Your task to perform on an android device: turn on sleep mode Image 0: 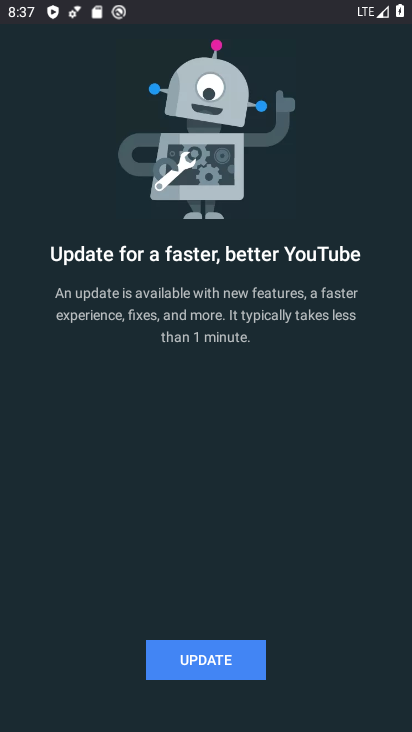
Step 0: press back button
Your task to perform on an android device: turn on sleep mode Image 1: 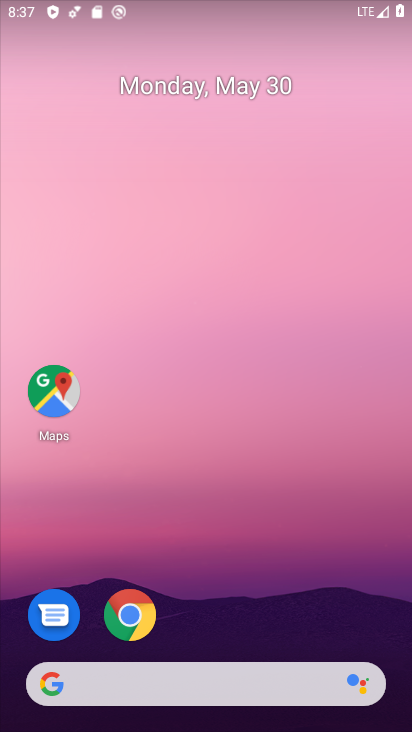
Step 1: drag from (194, 29) to (189, 515)
Your task to perform on an android device: turn on sleep mode Image 2: 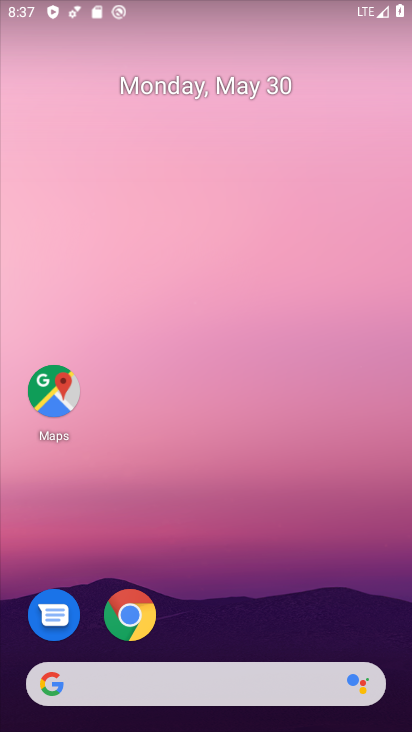
Step 2: drag from (236, 17) to (187, 589)
Your task to perform on an android device: turn on sleep mode Image 3: 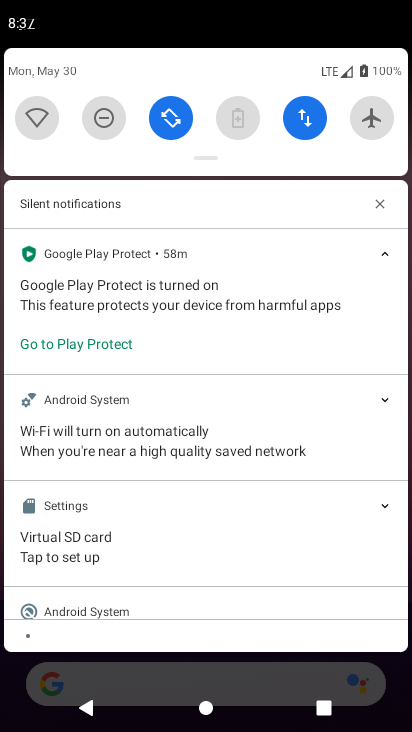
Step 3: drag from (186, 159) to (146, 524)
Your task to perform on an android device: turn on sleep mode Image 4: 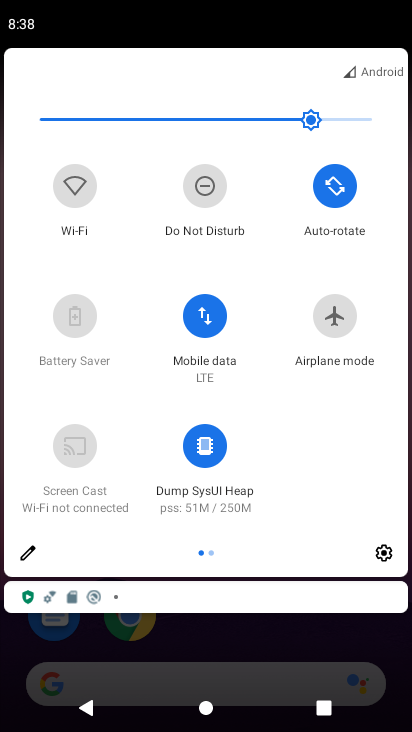
Step 4: click (24, 560)
Your task to perform on an android device: turn on sleep mode Image 5: 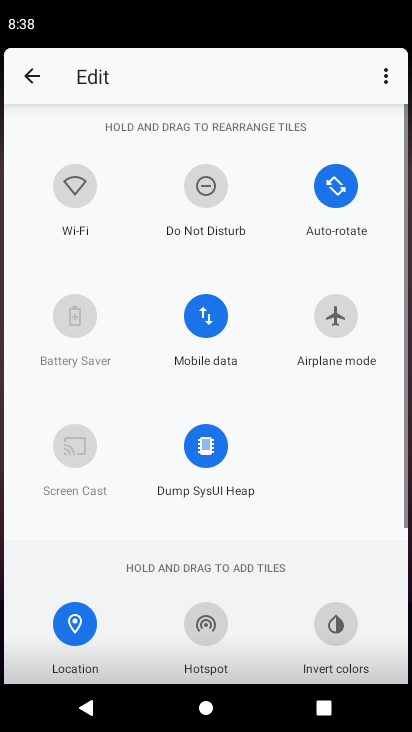
Step 5: task complete